Your task to perform on an android device: Go to Amazon Image 0: 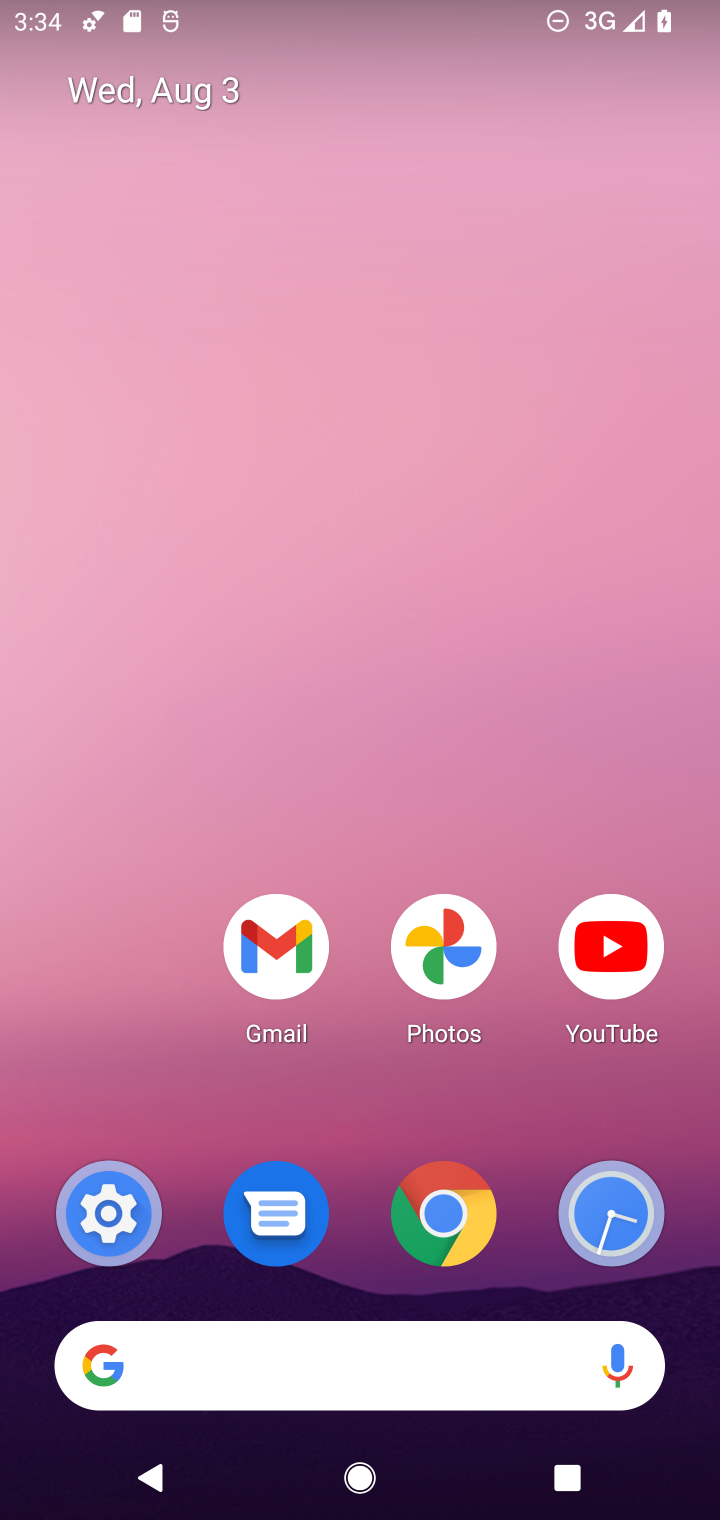
Step 0: click (457, 1212)
Your task to perform on an android device: Go to Amazon Image 1: 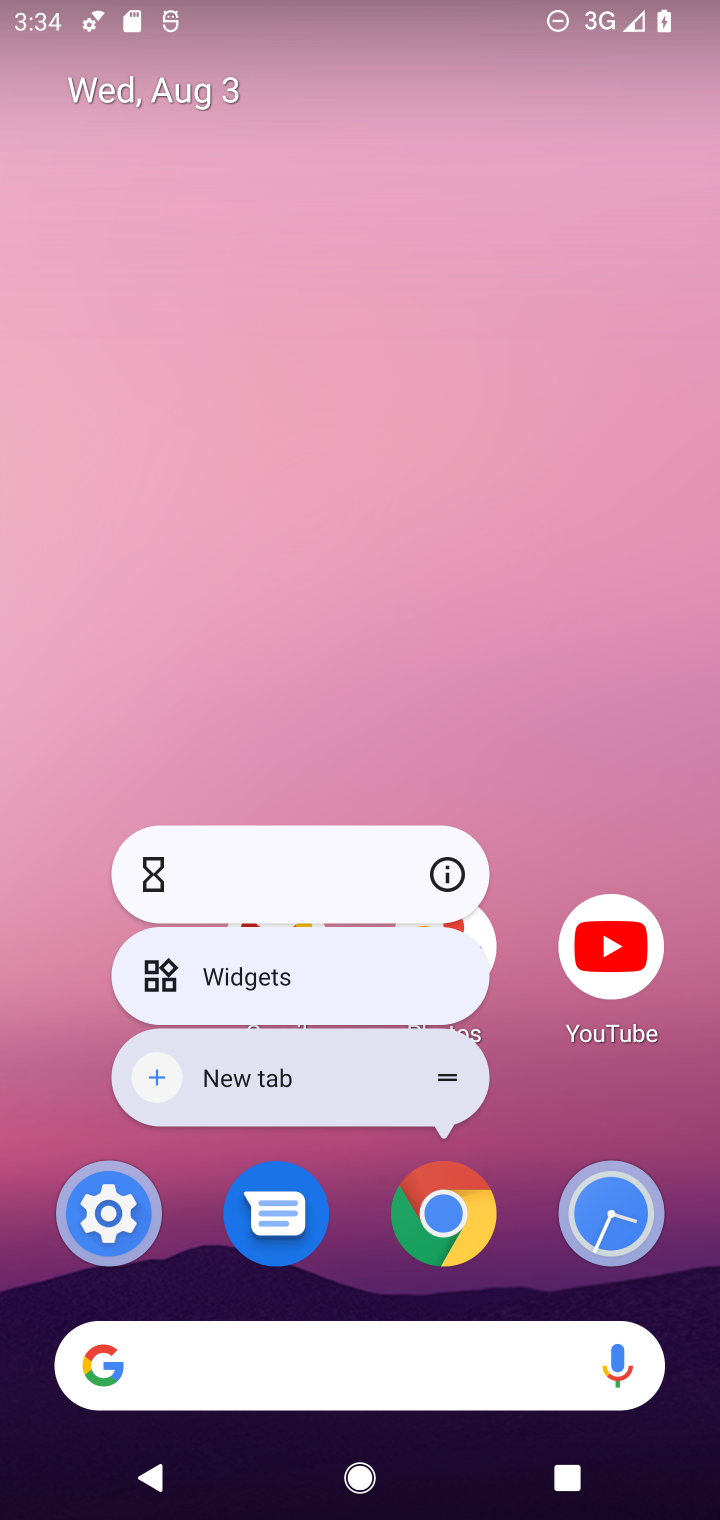
Step 1: click (436, 1203)
Your task to perform on an android device: Go to Amazon Image 2: 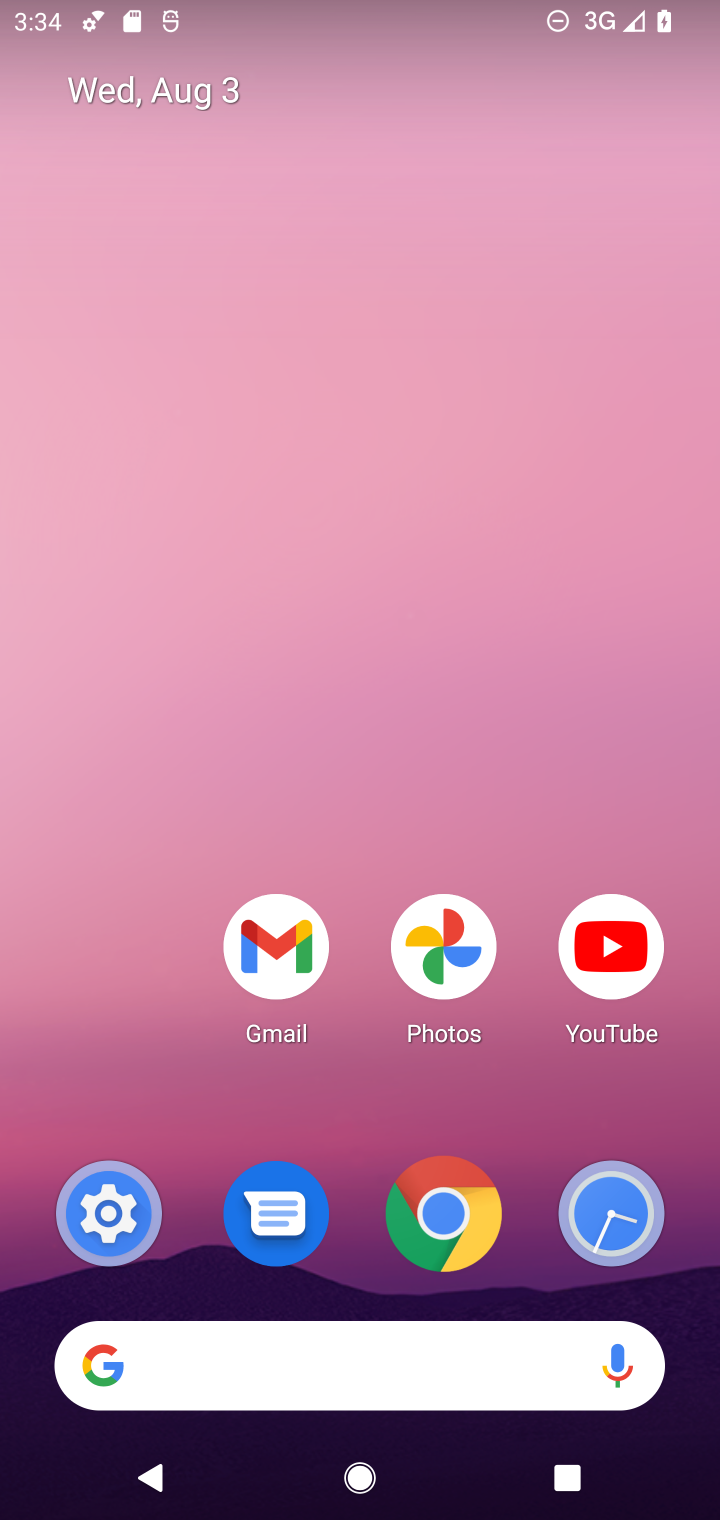
Step 2: drag from (357, 1259) to (386, 316)
Your task to perform on an android device: Go to Amazon Image 3: 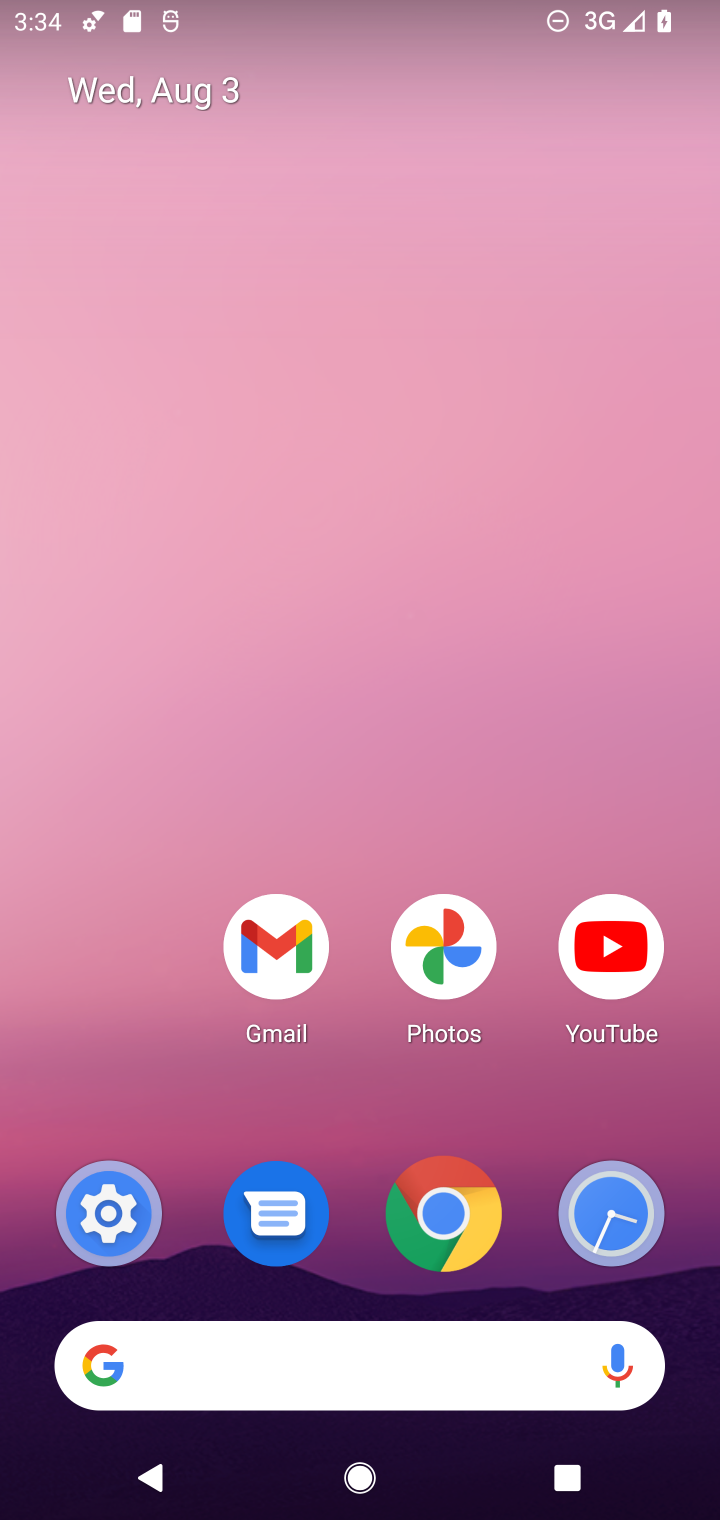
Step 3: drag from (355, 1111) to (356, 257)
Your task to perform on an android device: Go to Amazon Image 4: 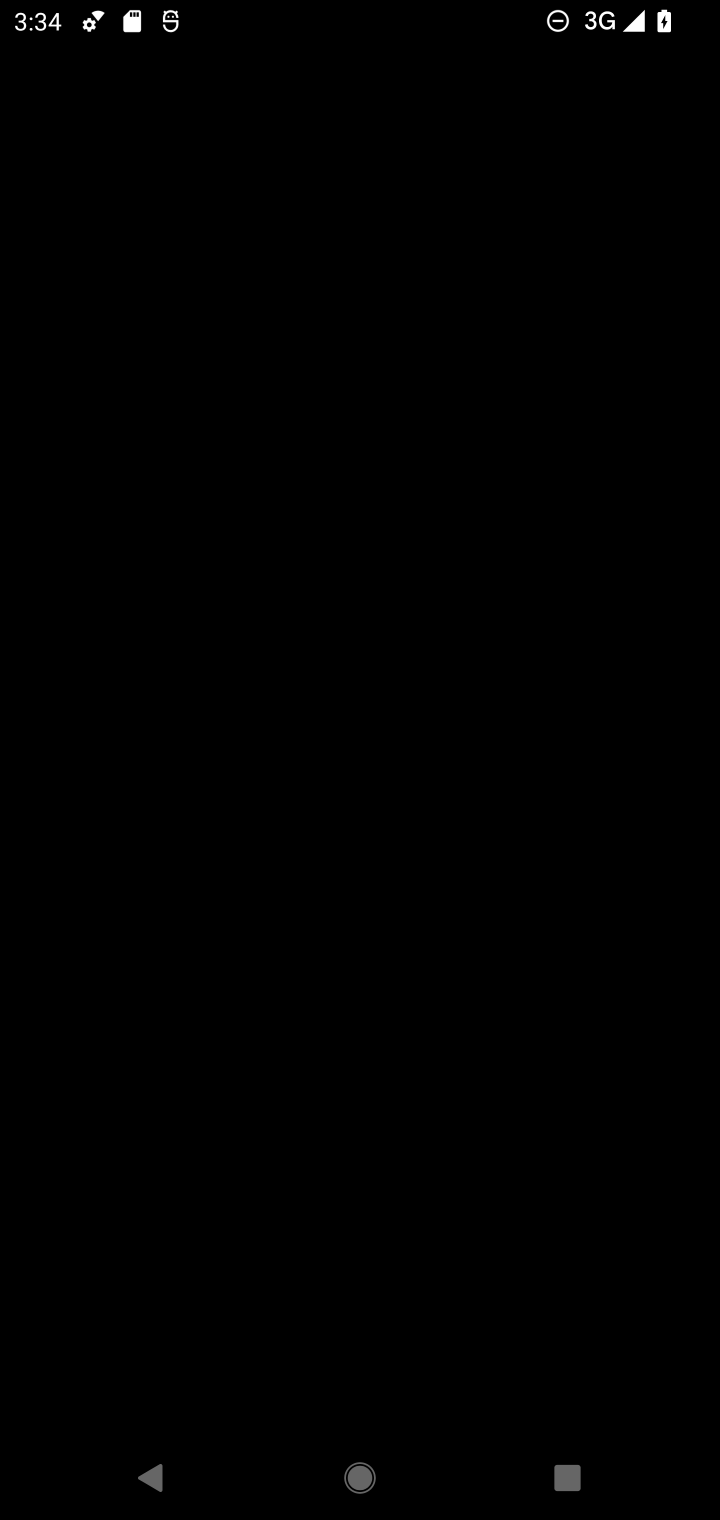
Step 4: press home button
Your task to perform on an android device: Go to Amazon Image 5: 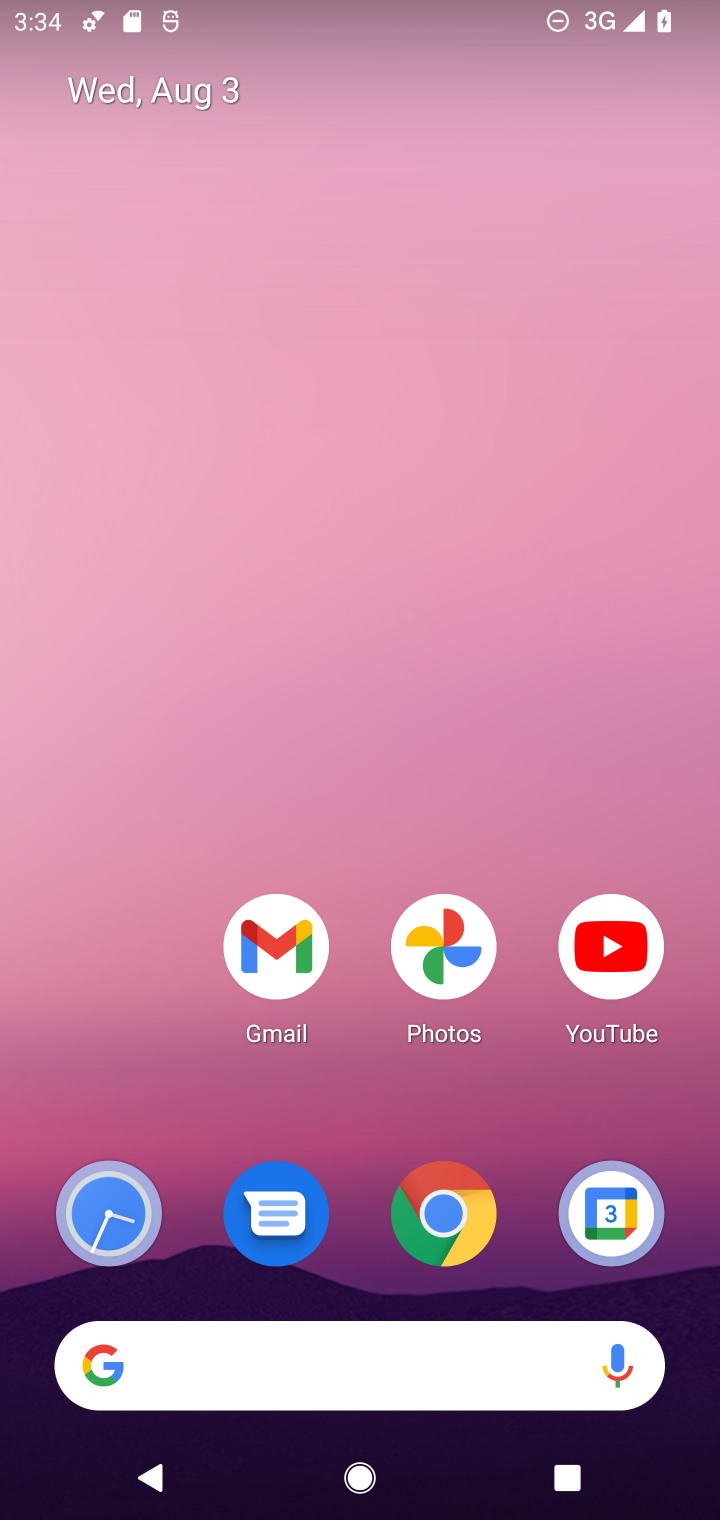
Step 5: drag from (347, 1277) to (500, 143)
Your task to perform on an android device: Go to Amazon Image 6: 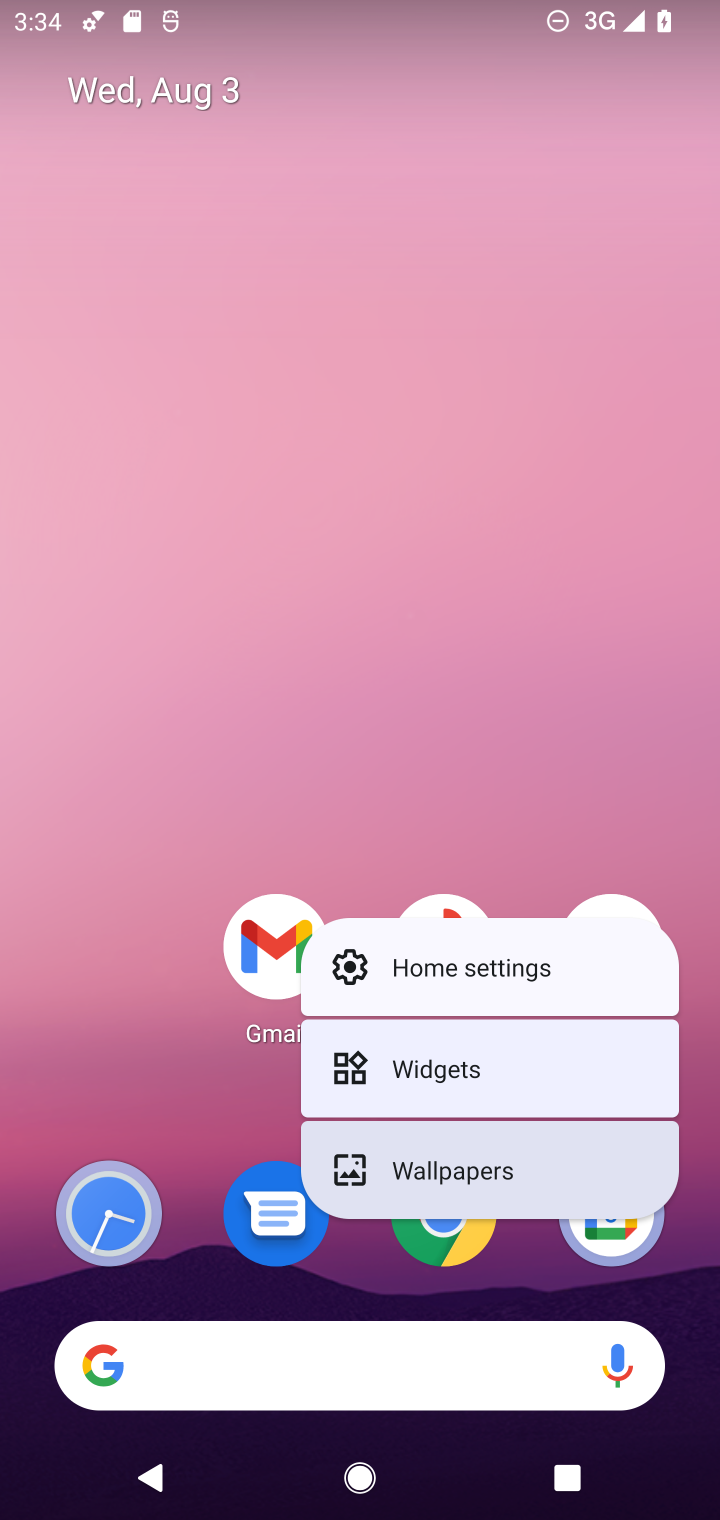
Step 6: click (89, 1045)
Your task to perform on an android device: Go to Amazon Image 7: 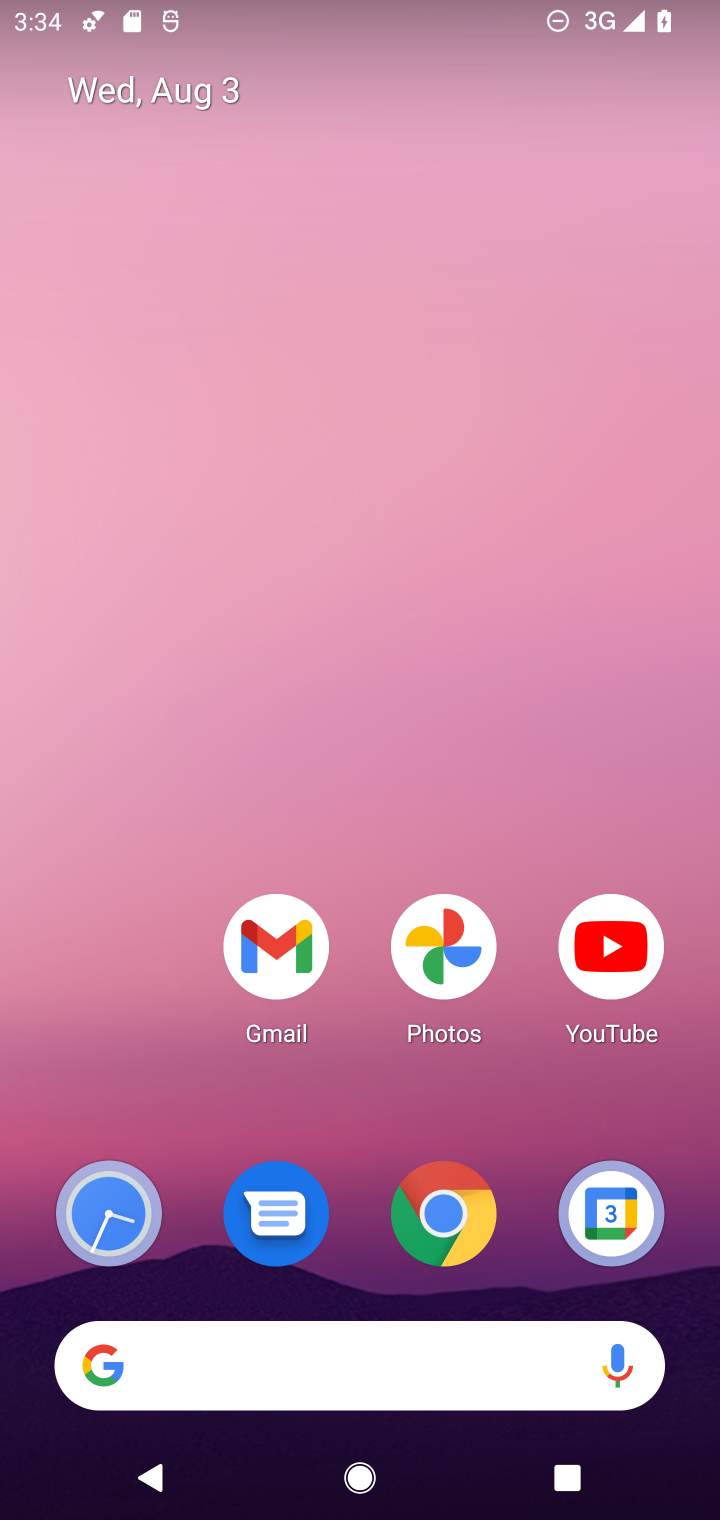
Step 7: drag from (96, 1202) to (185, 157)
Your task to perform on an android device: Go to Amazon Image 8: 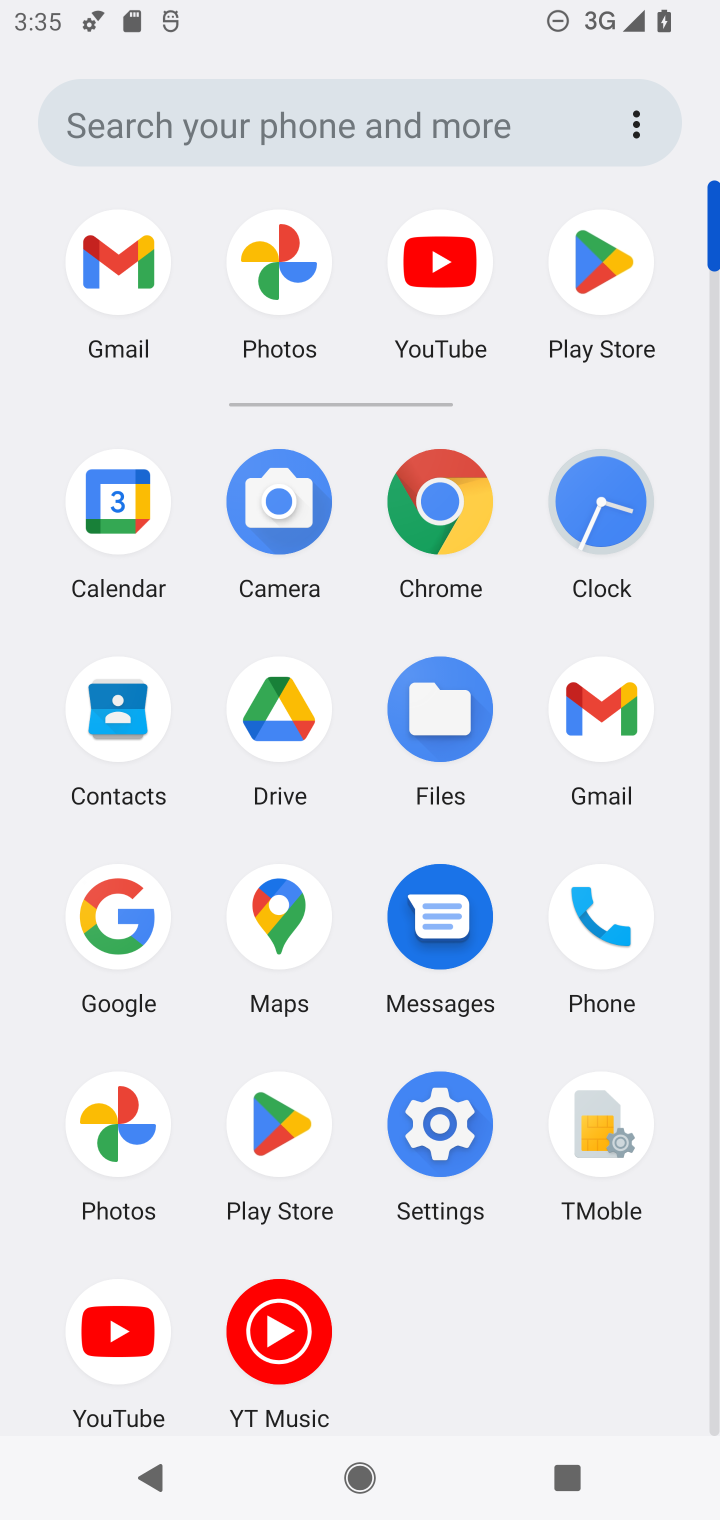
Step 8: click (450, 471)
Your task to perform on an android device: Go to Amazon Image 9: 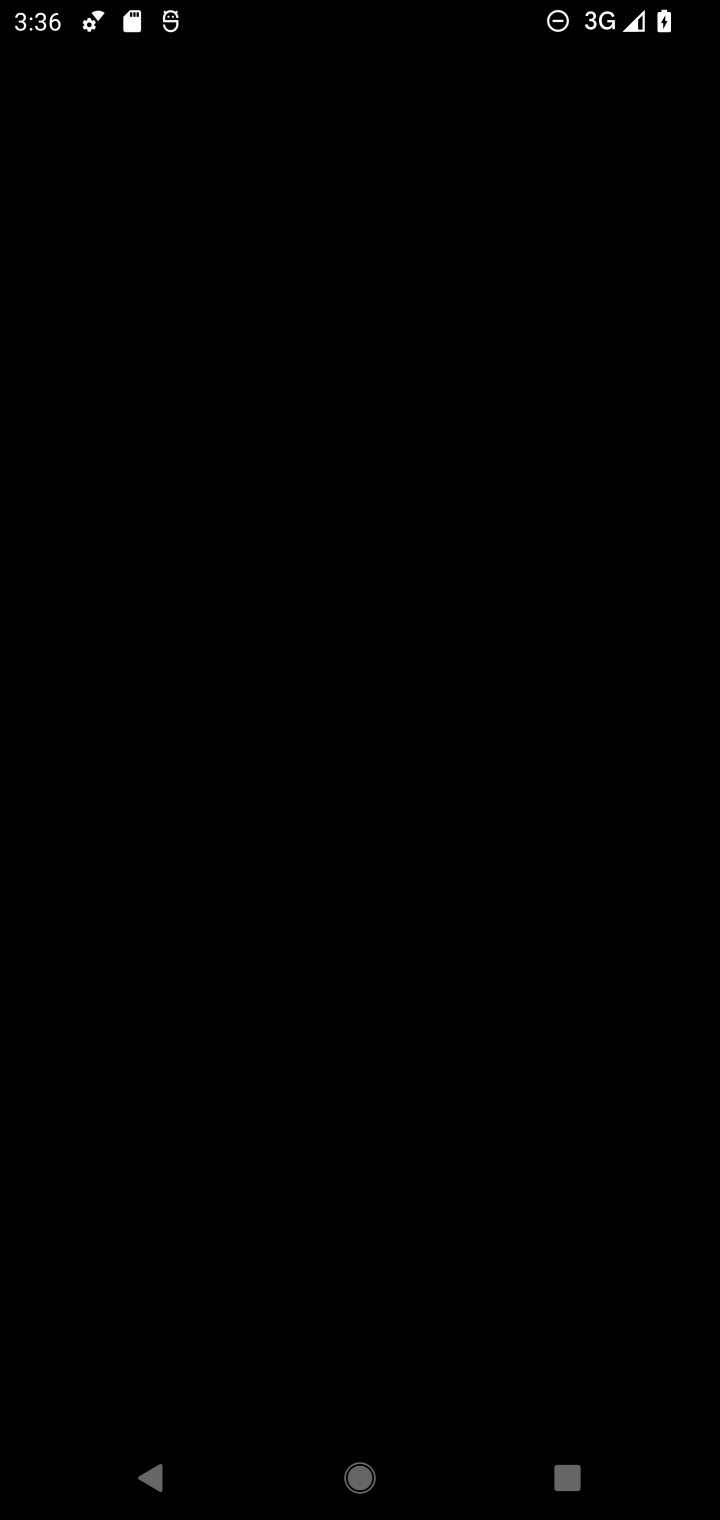
Step 9: task complete